Your task to perform on an android device: Toggle the flashlight Image 0: 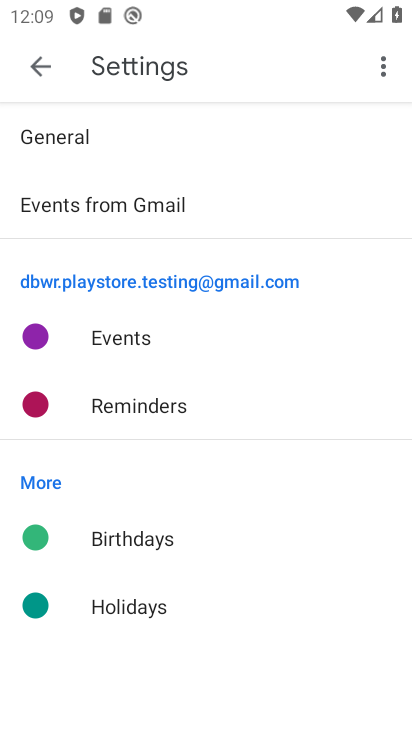
Step 0: press home button
Your task to perform on an android device: Toggle the flashlight Image 1: 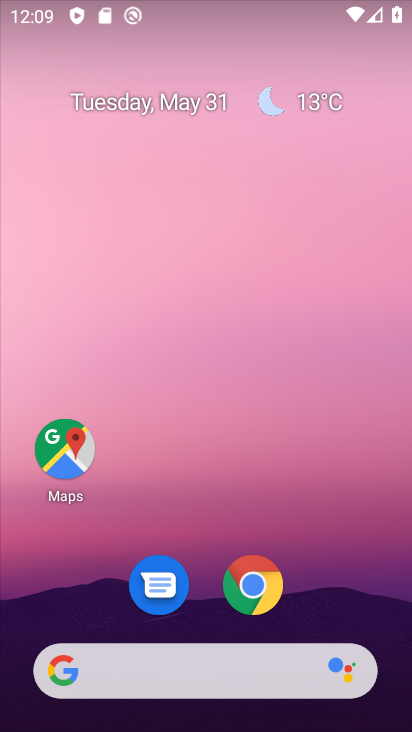
Step 1: click (215, 682)
Your task to perform on an android device: Toggle the flashlight Image 2: 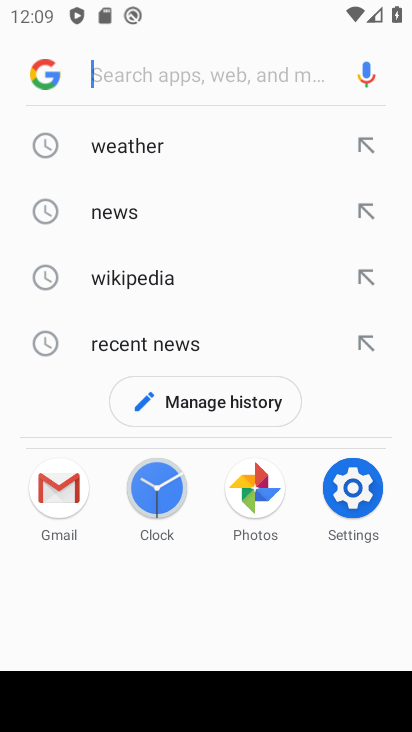
Step 2: press home button
Your task to perform on an android device: Toggle the flashlight Image 3: 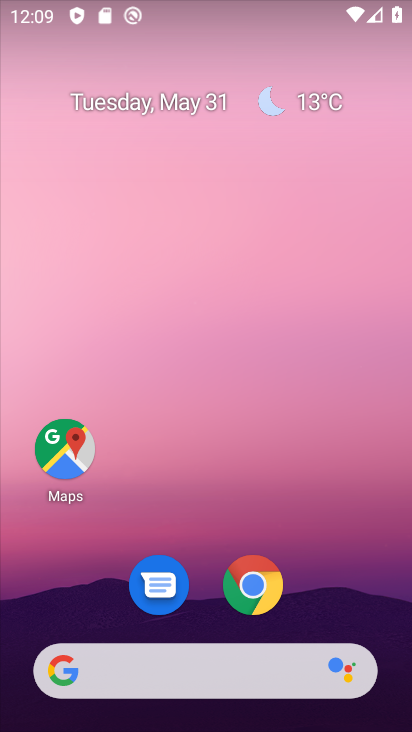
Step 3: drag from (207, 470) to (241, 31)
Your task to perform on an android device: Toggle the flashlight Image 4: 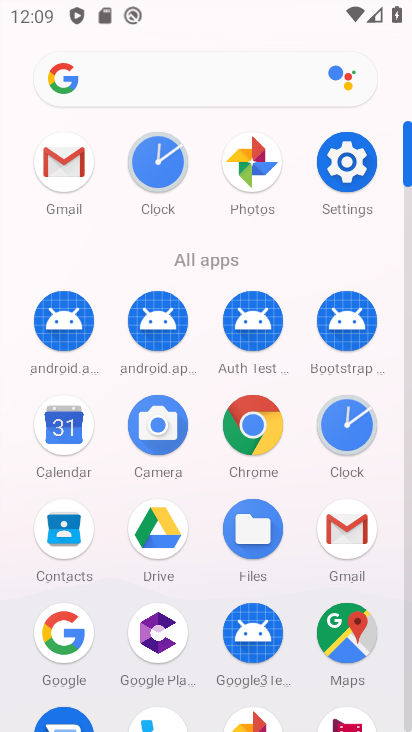
Step 4: click (347, 176)
Your task to perform on an android device: Toggle the flashlight Image 5: 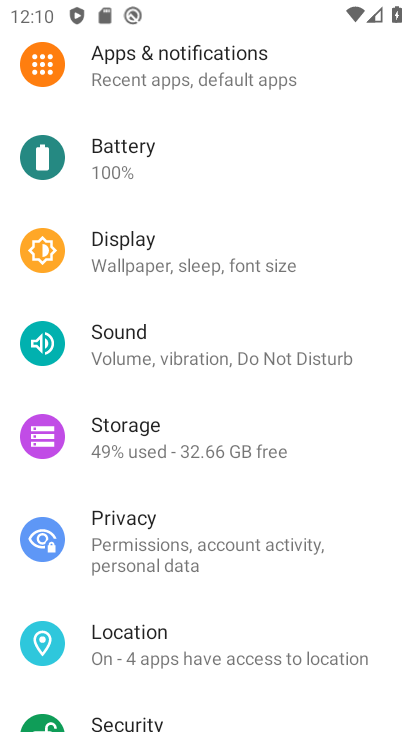
Step 5: drag from (216, 191) to (193, 709)
Your task to perform on an android device: Toggle the flashlight Image 6: 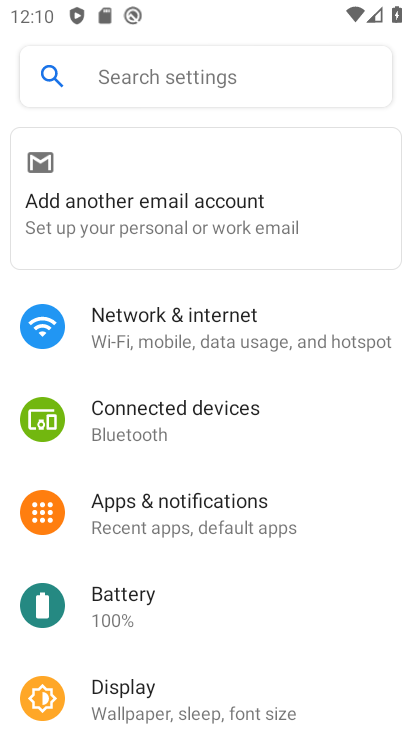
Step 6: click (270, 67)
Your task to perform on an android device: Toggle the flashlight Image 7: 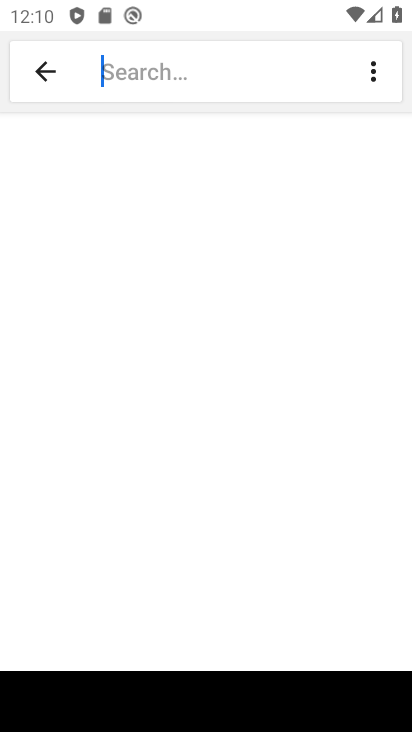
Step 7: type "Flashlight"
Your task to perform on an android device: Toggle the flashlight Image 8: 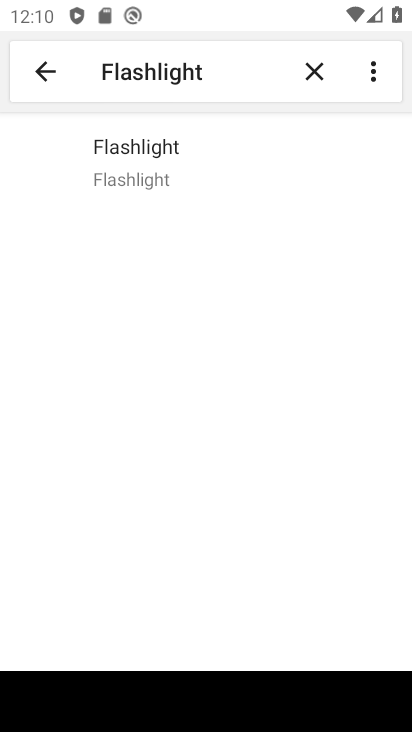
Step 8: click (145, 155)
Your task to perform on an android device: Toggle the flashlight Image 9: 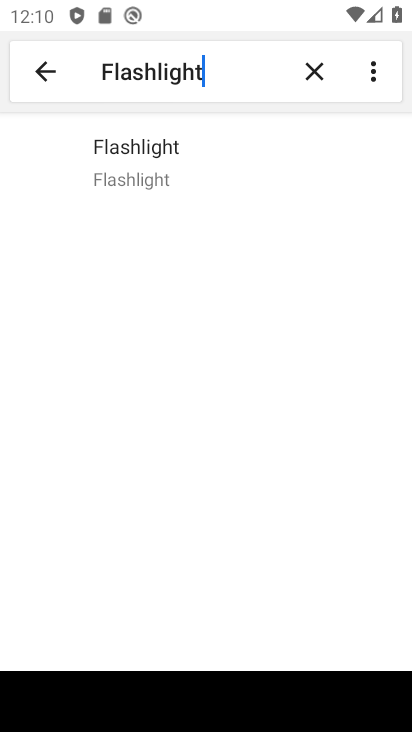
Step 9: task complete